Your task to perform on an android device: star an email in the gmail app Image 0: 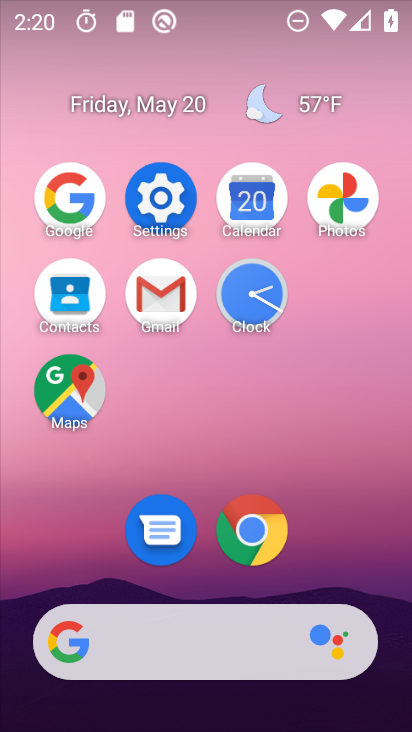
Step 0: click (164, 290)
Your task to perform on an android device: star an email in the gmail app Image 1: 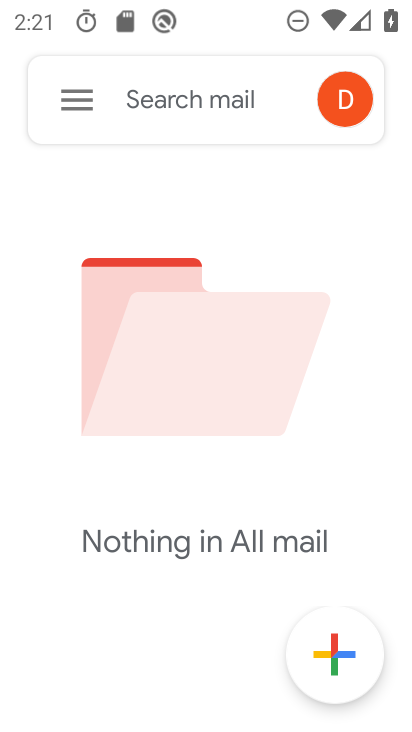
Step 1: task complete